Your task to perform on an android device: toggle notification dots Image 0: 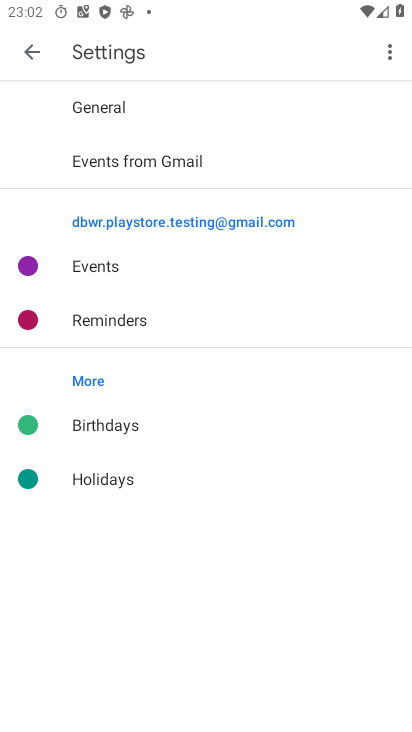
Step 0: press home button
Your task to perform on an android device: toggle notification dots Image 1: 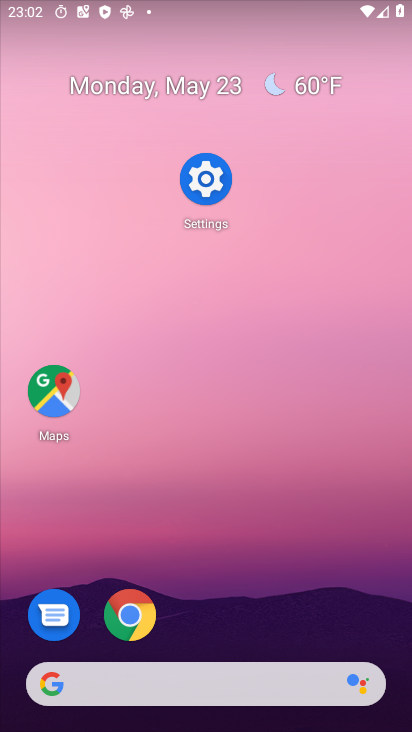
Step 1: drag from (280, 388) to (287, 10)
Your task to perform on an android device: toggle notification dots Image 2: 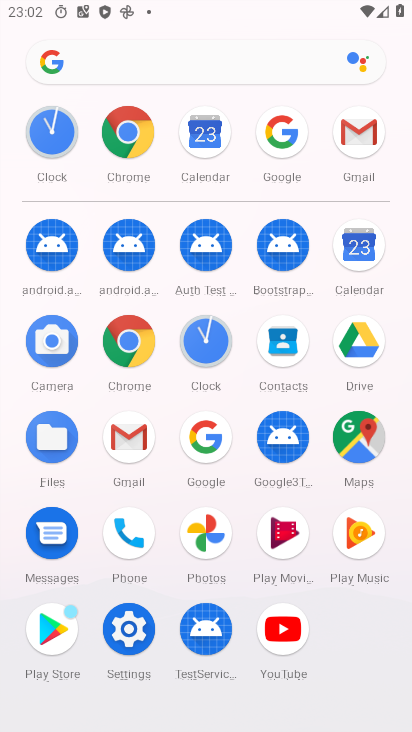
Step 2: click (135, 627)
Your task to perform on an android device: toggle notification dots Image 3: 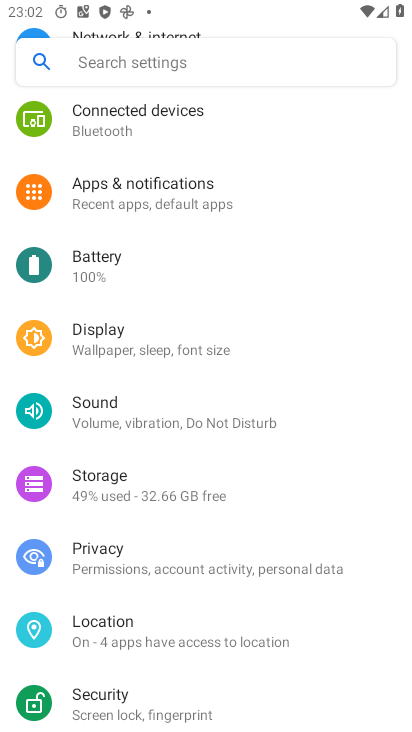
Step 3: click (142, 201)
Your task to perform on an android device: toggle notification dots Image 4: 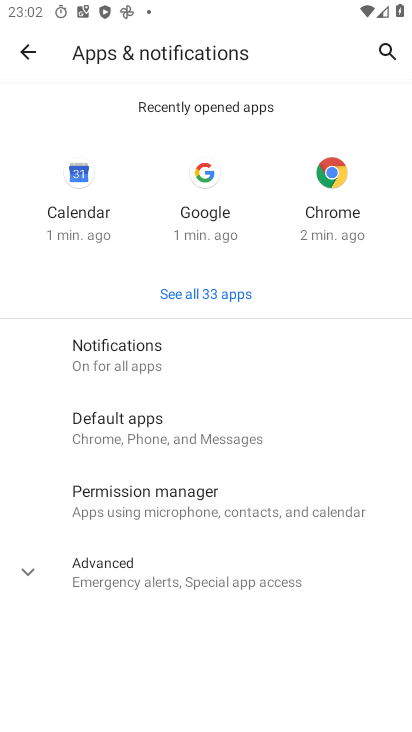
Step 4: click (155, 340)
Your task to perform on an android device: toggle notification dots Image 5: 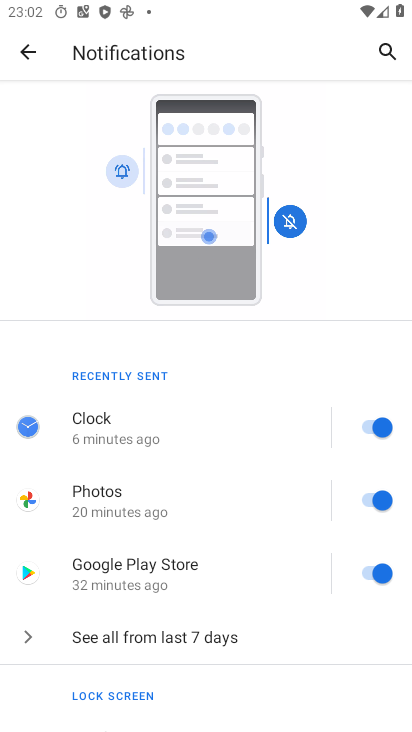
Step 5: drag from (225, 632) to (221, 209)
Your task to perform on an android device: toggle notification dots Image 6: 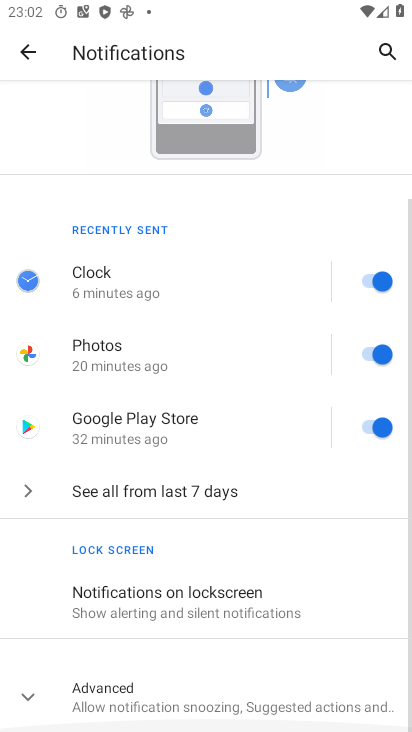
Step 6: click (142, 705)
Your task to perform on an android device: toggle notification dots Image 7: 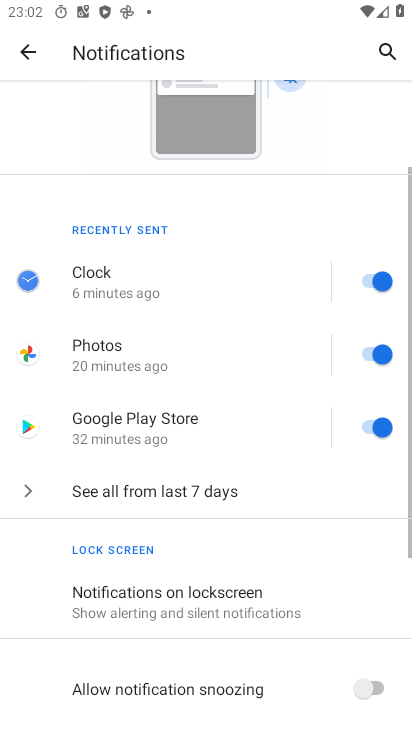
Step 7: drag from (272, 643) to (284, 242)
Your task to perform on an android device: toggle notification dots Image 8: 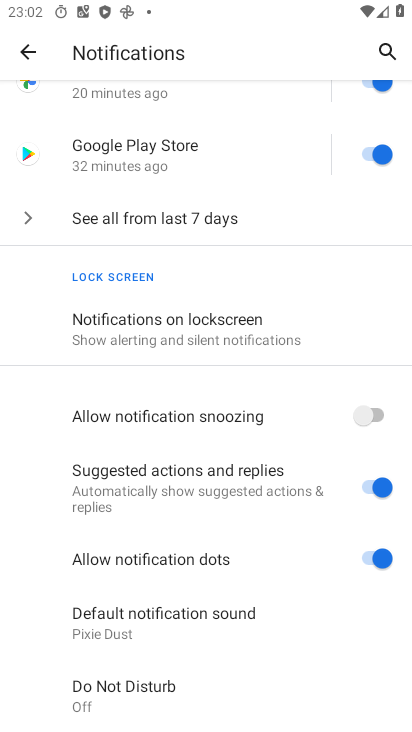
Step 8: click (371, 557)
Your task to perform on an android device: toggle notification dots Image 9: 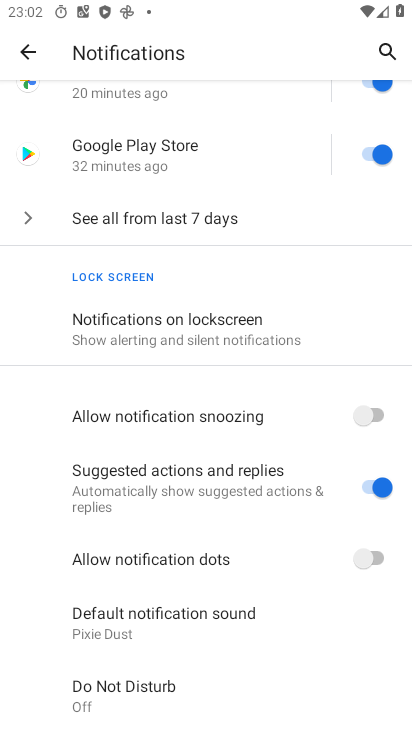
Step 9: task complete